Your task to perform on an android device: What is the news today? Image 0: 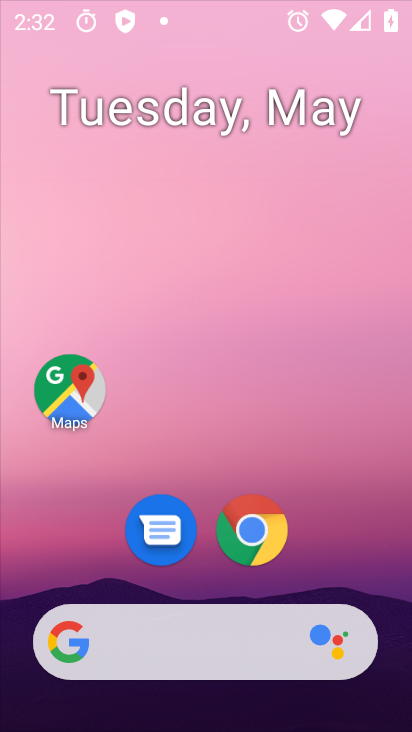
Step 0: drag from (194, 0) to (226, 15)
Your task to perform on an android device: What is the news today? Image 1: 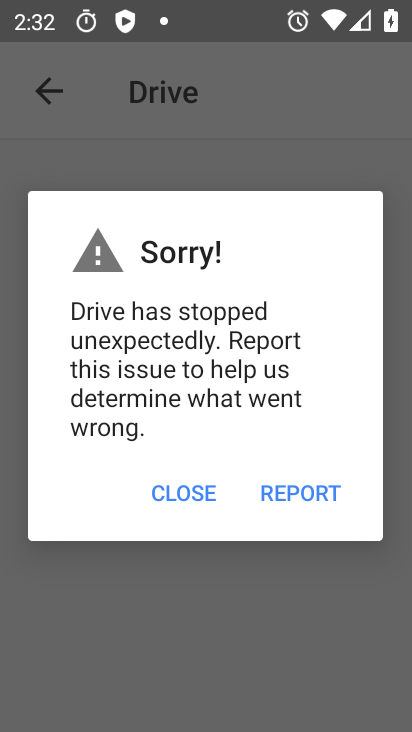
Step 1: click (182, 487)
Your task to perform on an android device: What is the news today? Image 2: 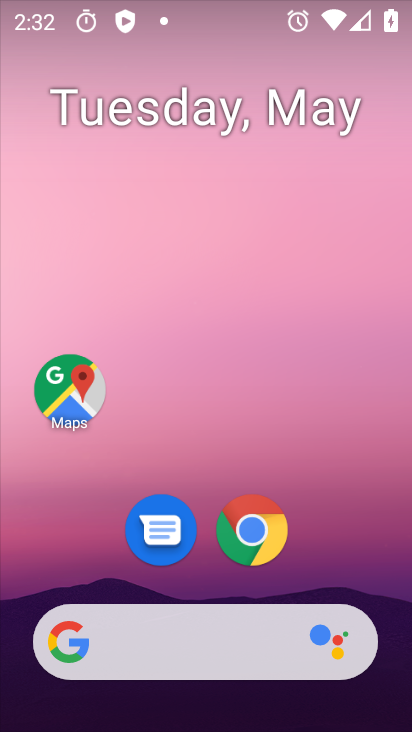
Step 2: drag from (192, 586) to (164, 91)
Your task to perform on an android device: What is the news today? Image 3: 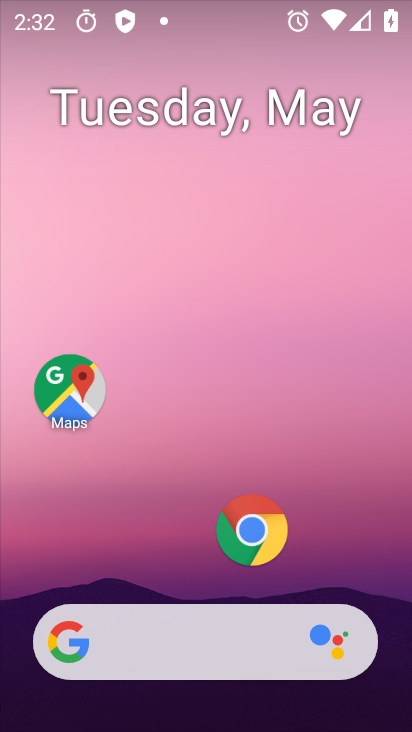
Step 3: click (202, 610)
Your task to perform on an android device: What is the news today? Image 4: 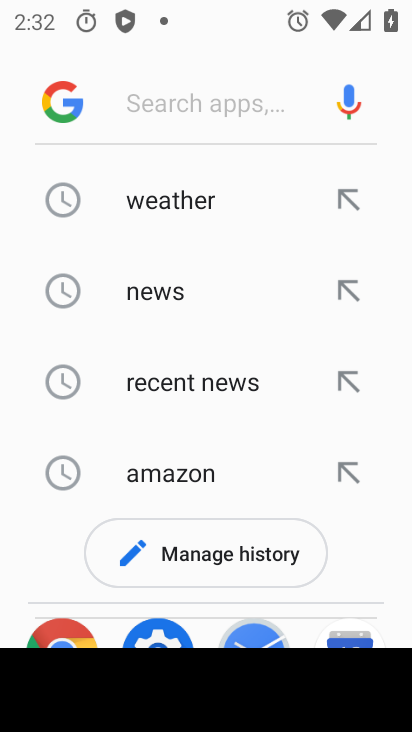
Step 4: click (216, 288)
Your task to perform on an android device: What is the news today? Image 5: 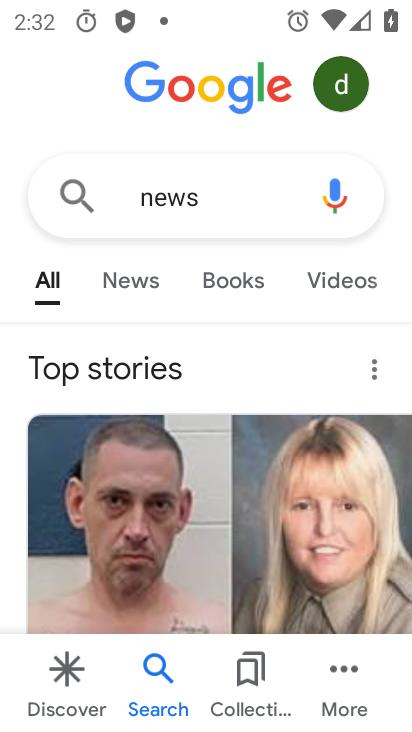
Step 5: task complete